Your task to perform on an android device: open app "Google Chat" (install if not already installed) Image 0: 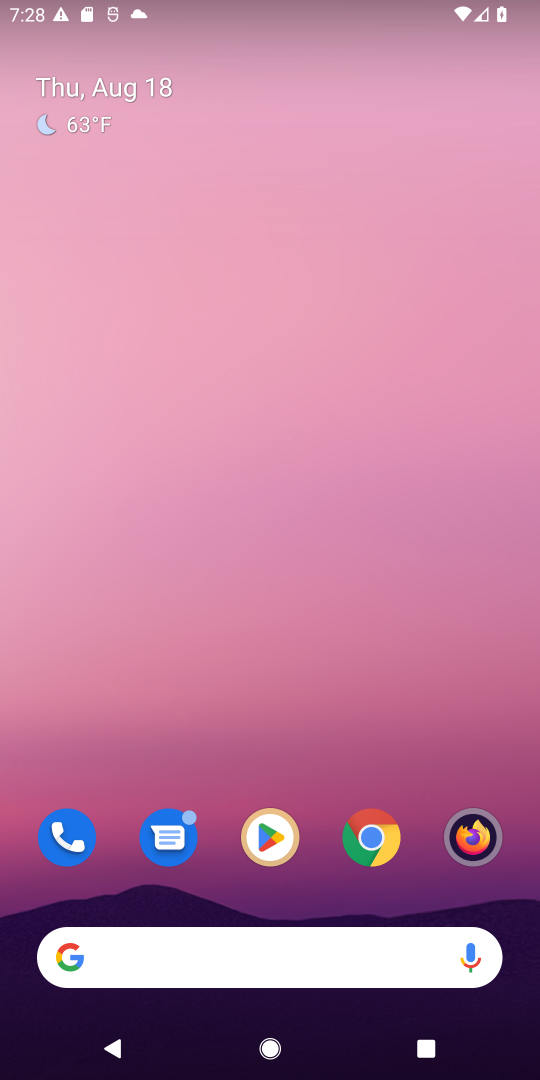
Step 0: click (268, 840)
Your task to perform on an android device: open app "Google Chat" (install if not already installed) Image 1: 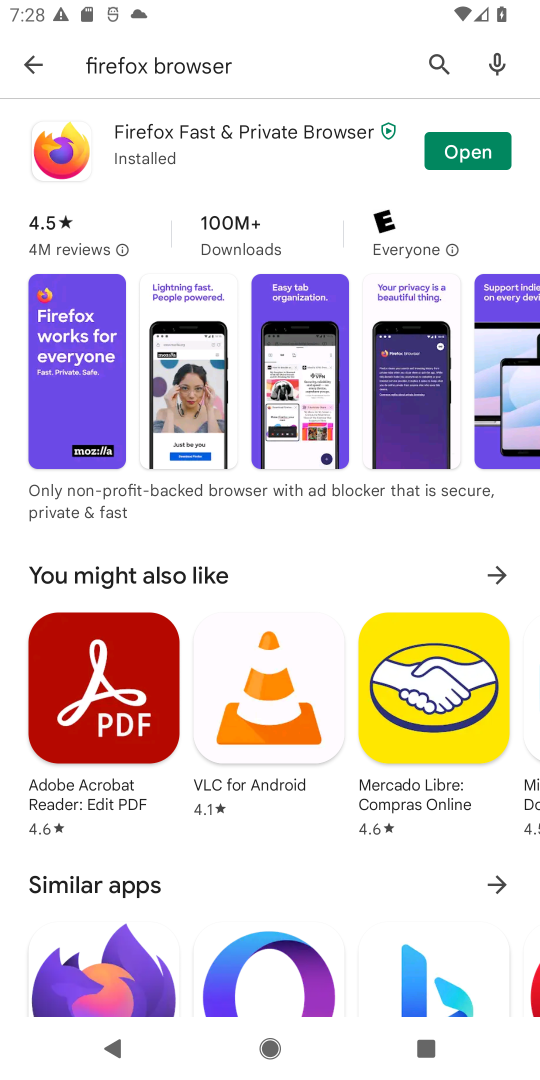
Step 1: click (214, 68)
Your task to perform on an android device: open app "Google Chat" (install if not already installed) Image 2: 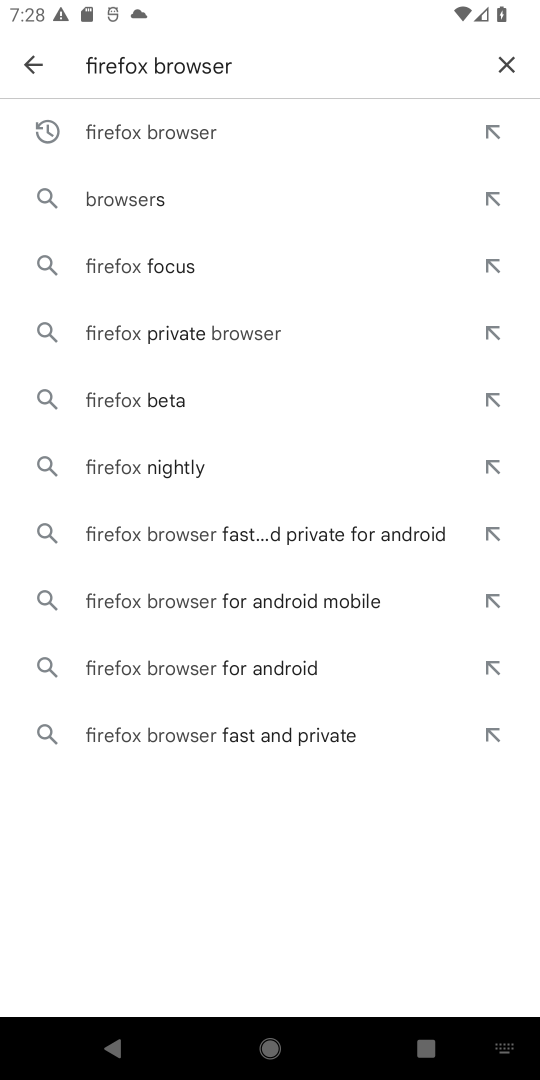
Step 2: click (501, 58)
Your task to perform on an android device: open app "Google Chat" (install if not already installed) Image 3: 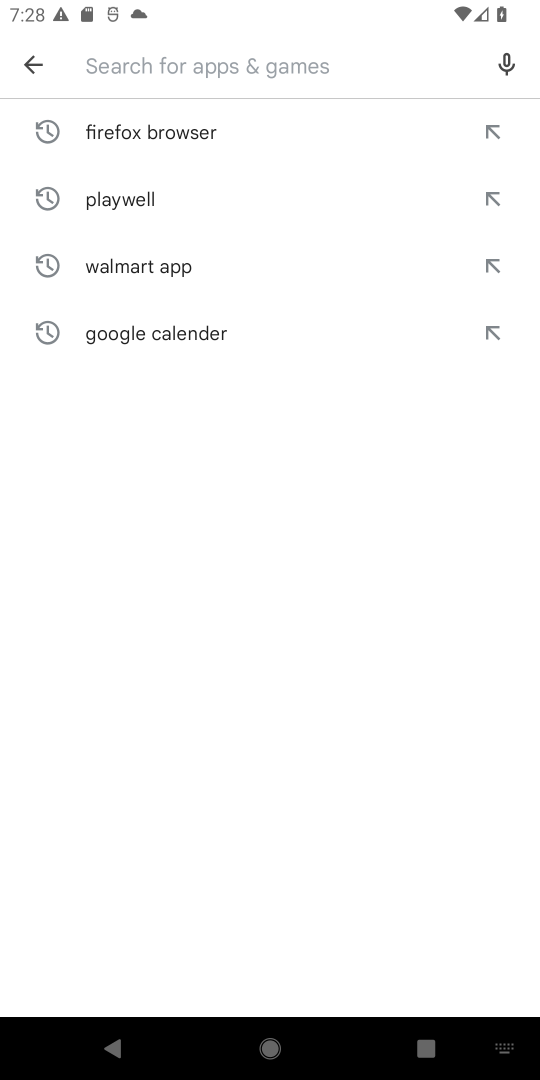
Step 3: type "go"
Your task to perform on an android device: open app "Google Chat" (install if not already installed) Image 4: 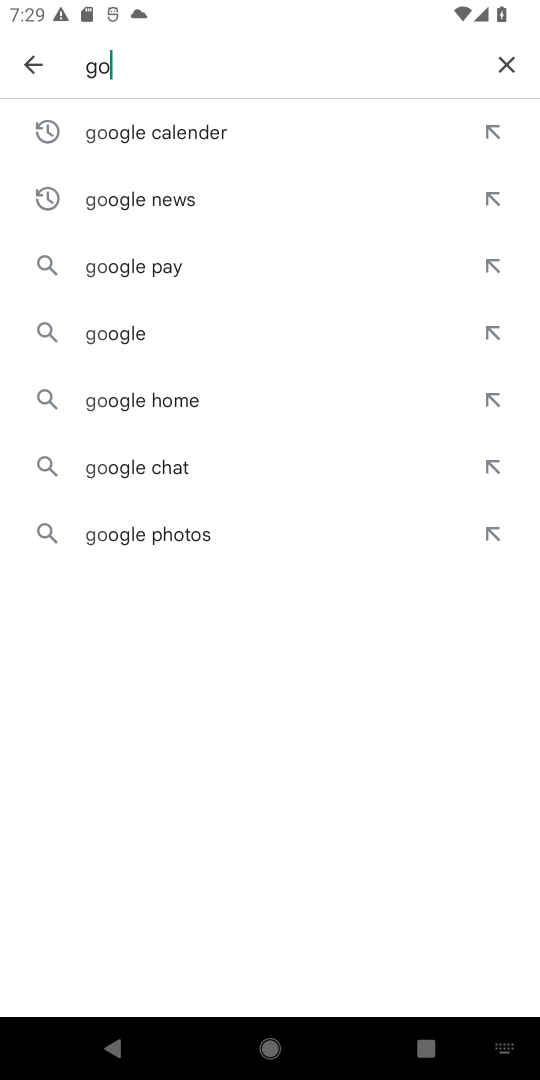
Step 4: type "ogle chat"
Your task to perform on an android device: open app "Google Chat" (install if not already installed) Image 5: 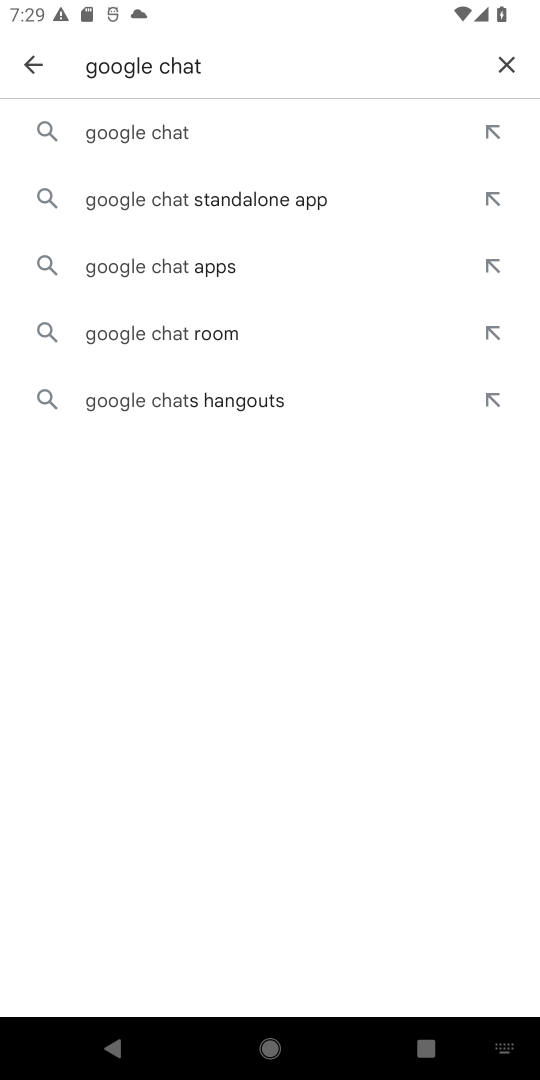
Step 5: click (181, 128)
Your task to perform on an android device: open app "Google Chat" (install if not already installed) Image 6: 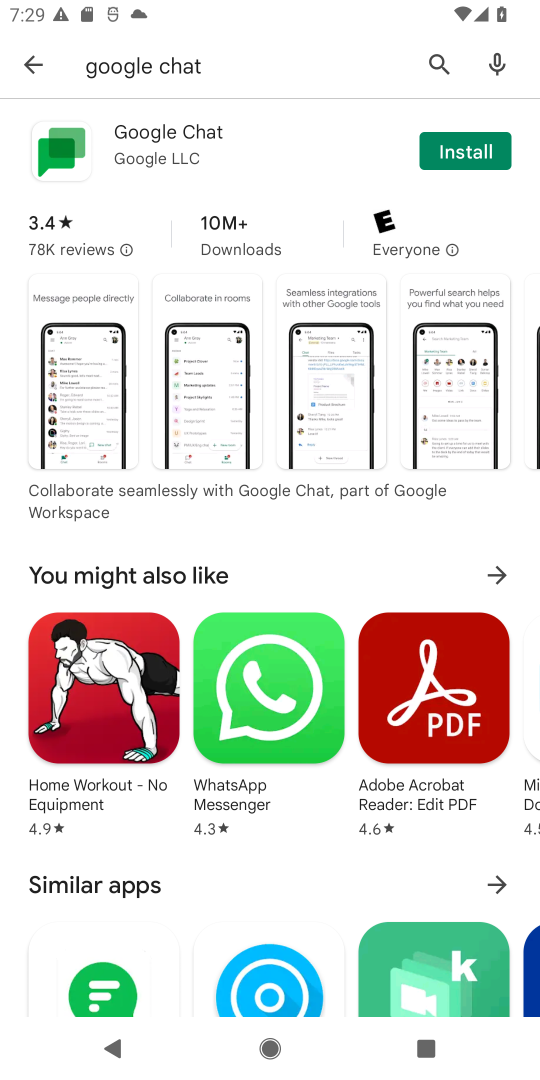
Step 6: click (470, 144)
Your task to perform on an android device: open app "Google Chat" (install if not already installed) Image 7: 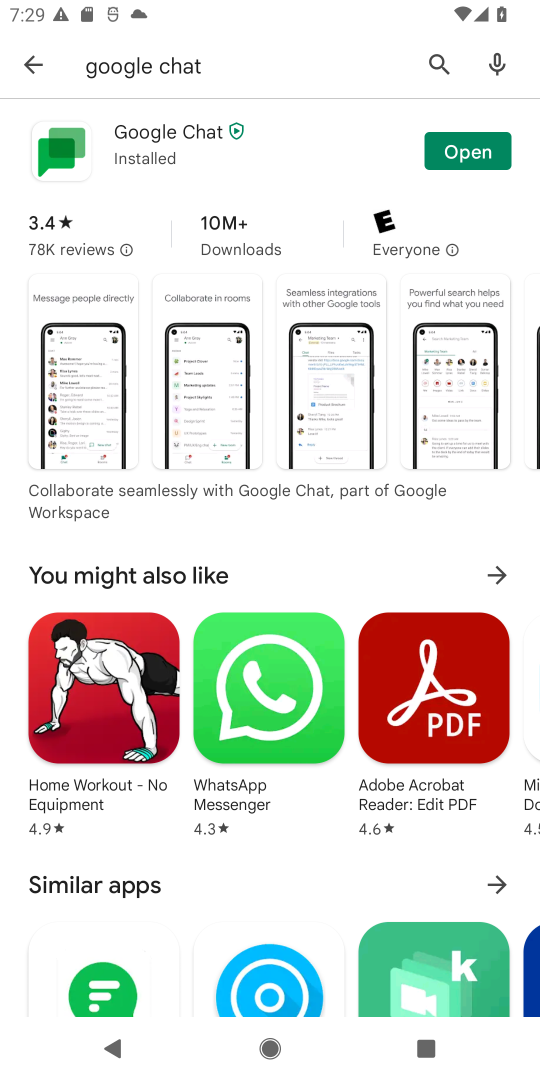
Step 7: click (471, 149)
Your task to perform on an android device: open app "Google Chat" (install if not already installed) Image 8: 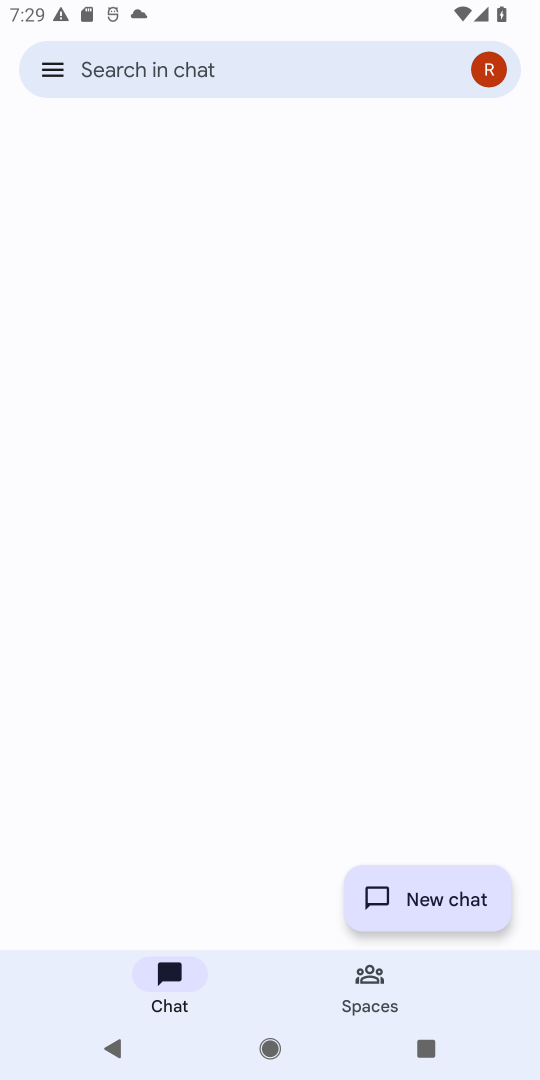
Step 8: task complete